Your task to perform on an android device: install app "Google Docs" Image 0: 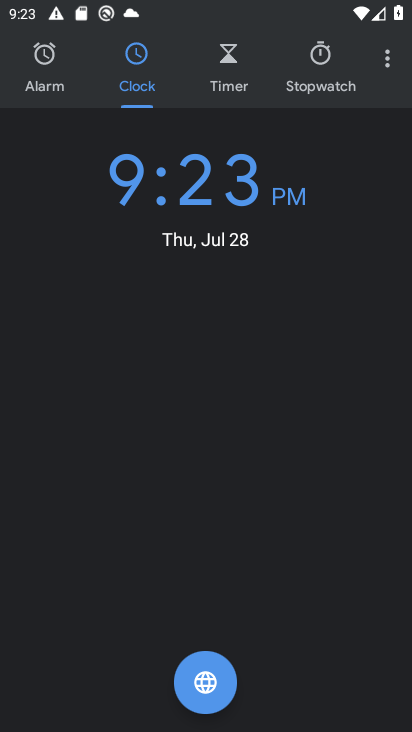
Step 0: press home button
Your task to perform on an android device: install app "Google Docs" Image 1: 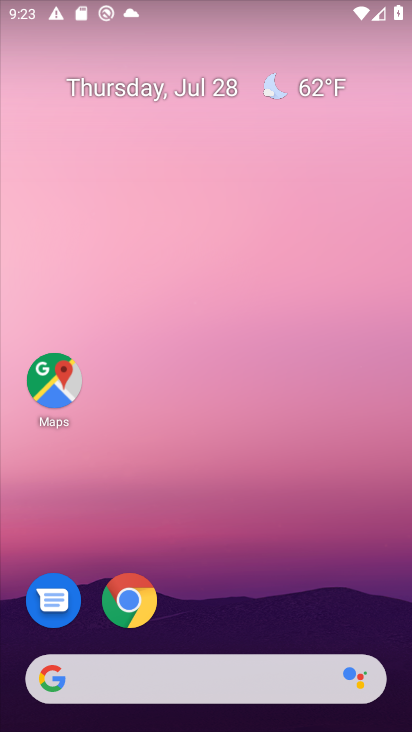
Step 1: drag from (232, 613) to (259, 71)
Your task to perform on an android device: install app "Google Docs" Image 2: 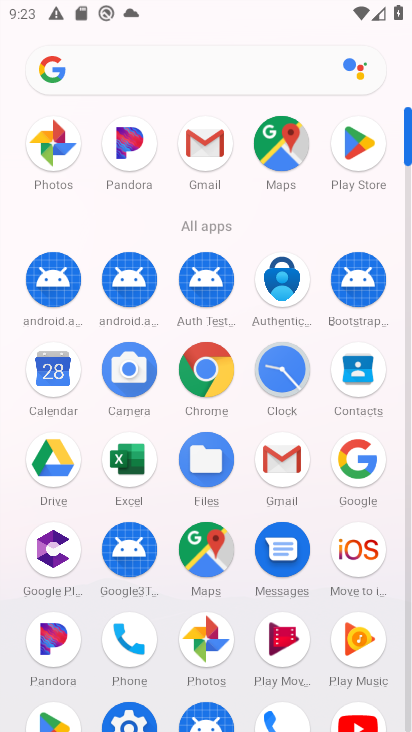
Step 2: click (356, 159)
Your task to perform on an android device: install app "Google Docs" Image 3: 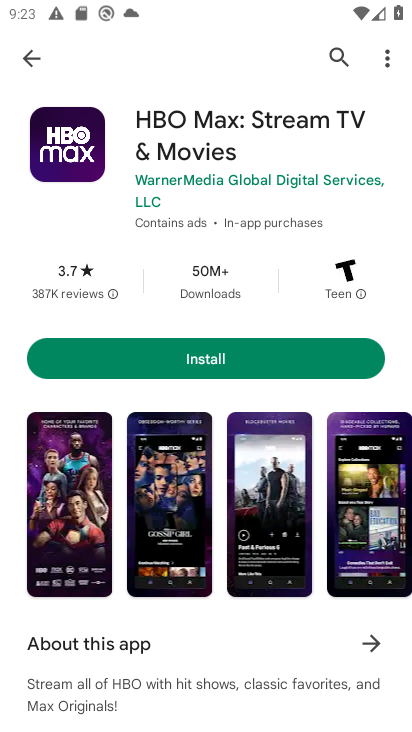
Step 3: click (336, 55)
Your task to perform on an android device: install app "Google Docs" Image 4: 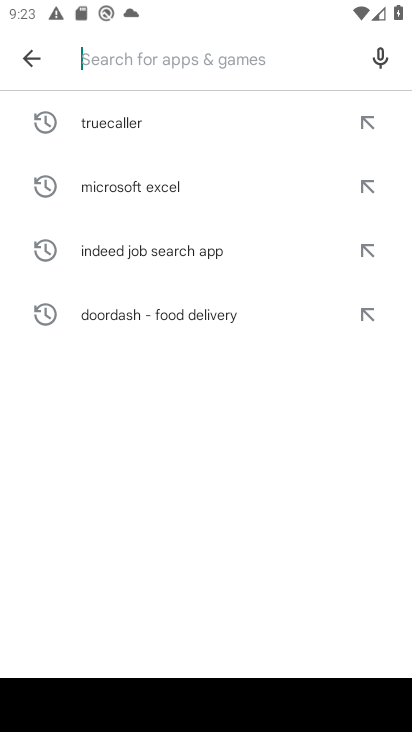
Step 4: click (199, 63)
Your task to perform on an android device: install app "Google Docs" Image 5: 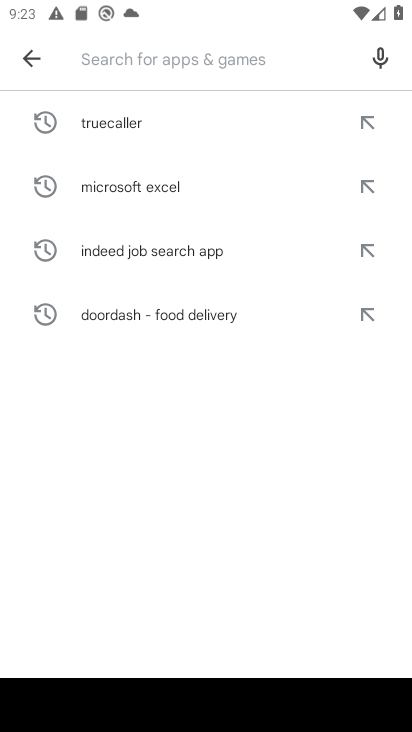
Step 5: type "Google Docs"
Your task to perform on an android device: install app "Google Docs" Image 6: 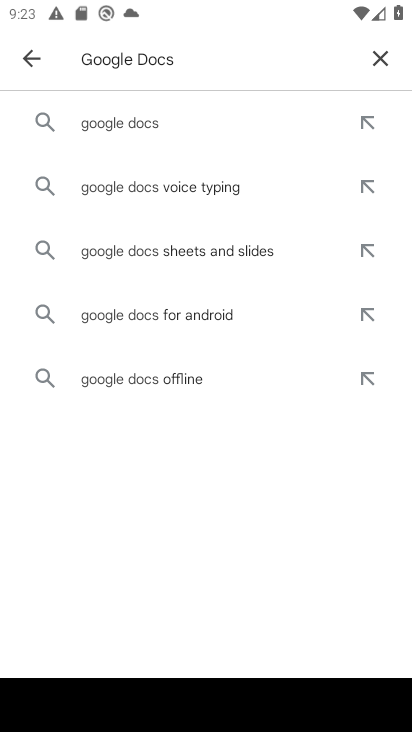
Step 6: click (126, 129)
Your task to perform on an android device: install app "Google Docs" Image 7: 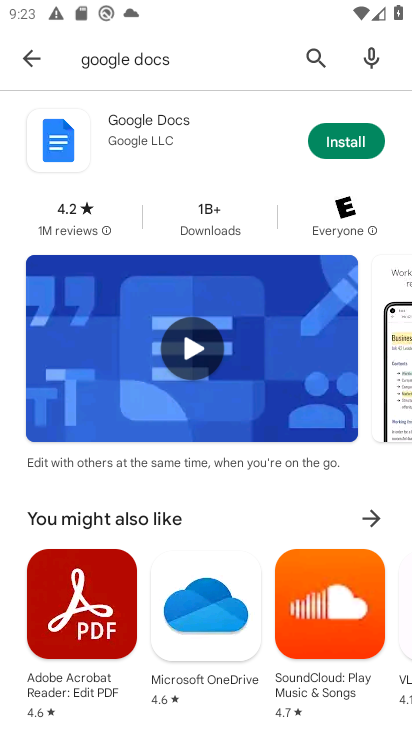
Step 7: click (337, 140)
Your task to perform on an android device: install app "Google Docs" Image 8: 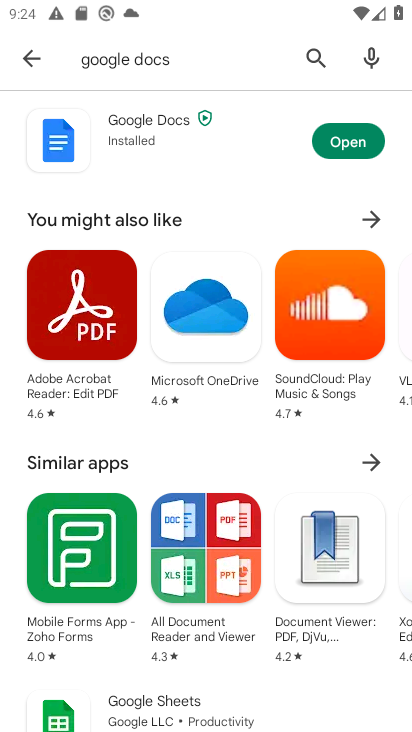
Step 8: task complete